Your task to perform on an android device: change the clock display to show seconds Image 0: 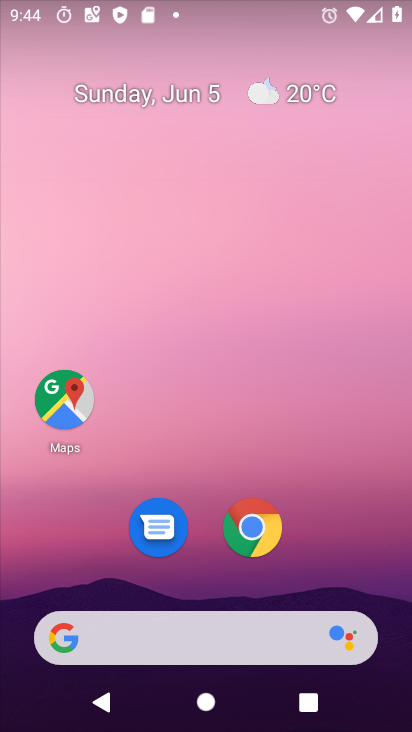
Step 0: drag from (333, 540) to (331, 1)
Your task to perform on an android device: change the clock display to show seconds Image 1: 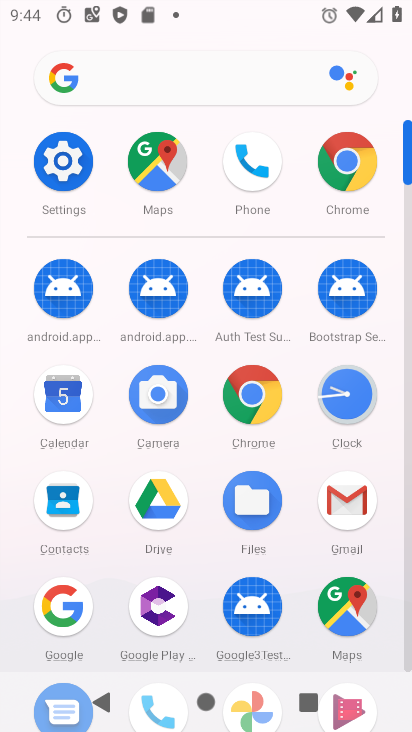
Step 1: click (345, 423)
Your task to perform on an android device: change the clock display to show seconds Image 2: 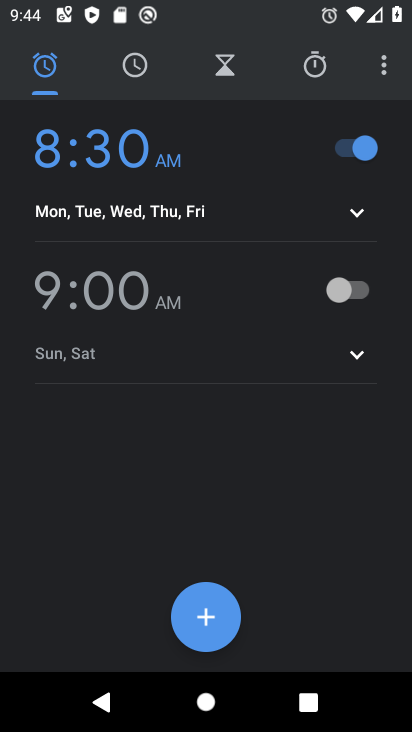
Step 2: click (377, 73)
Your task to perform on an android device: change the clock display to show seconds Image 3: 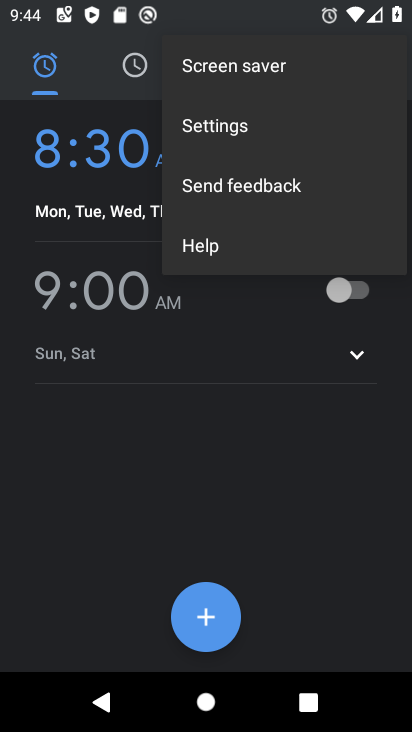
Step 3: click (259, 132)
Your task to perform on an android device: change the clock display to show seconds Image 4: 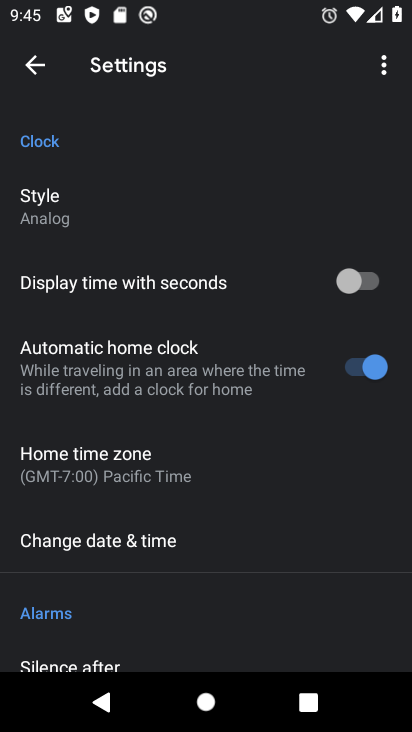
Step 4: click (343, 266)
Your task to perform on an android device: change the clock display to show seconds Image 5: 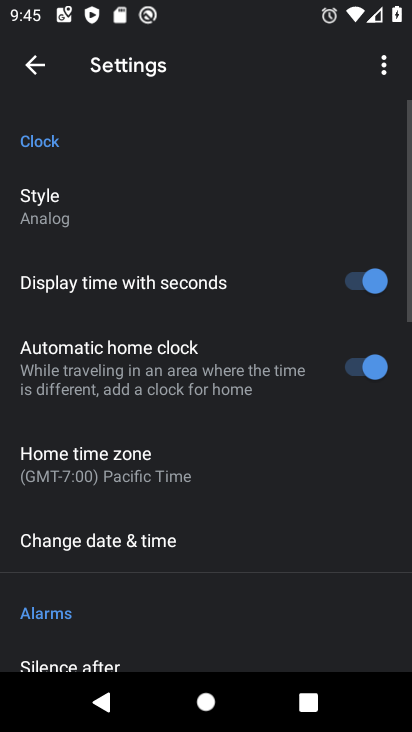
Step 5: task complete